Your task to perform on an android device: Go to location settings Image 0: 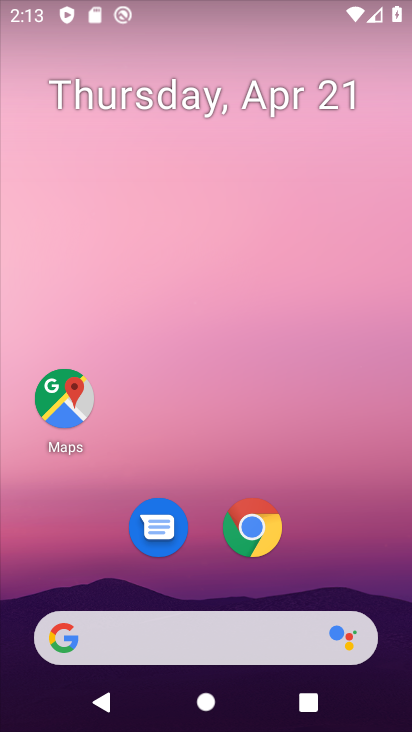
Step 0: drag from (224, 590) to (224, 126)
Your task to perform on an android device: Go to location settings Image 1: 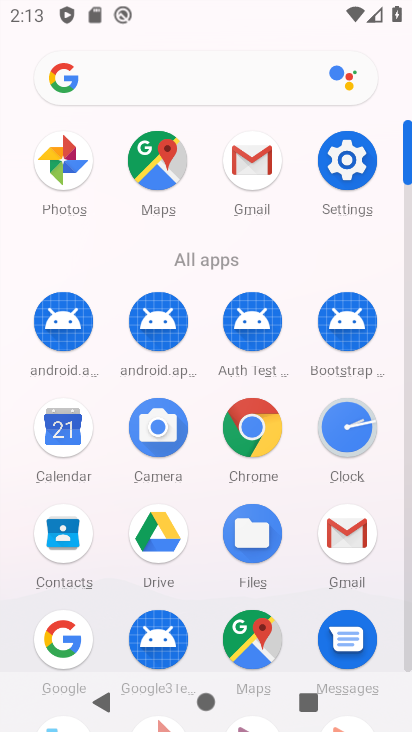
Step 1: click (353, 154)
Your task to perform on an android device: Go to location settings Image 2: 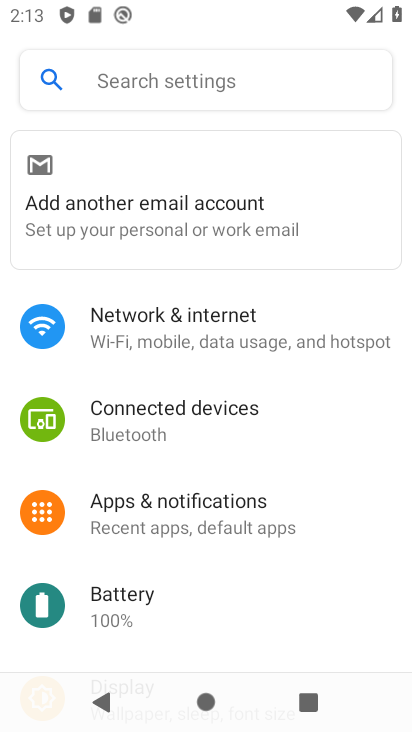
Step 2: drag from (222, 569) to (225, 191)
Your task to perform on an android device: Go to location settings Image 3: 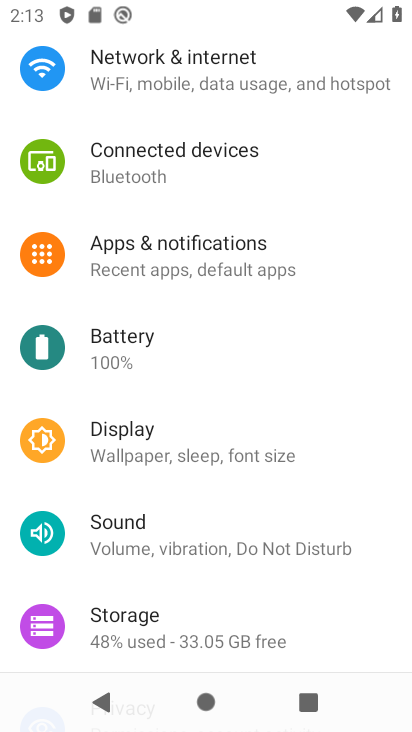
Step 3: drag from (192, 441) to (192, 282)
Your task to perform on an android device: Go to location settings Image 4: 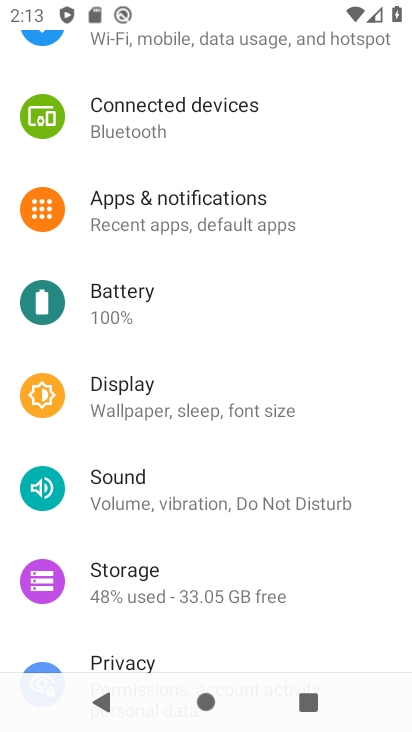
Step 4: drag from (175, 523) to (192, 280)
Your task to perform on an android device: Go to location settings Image 5: 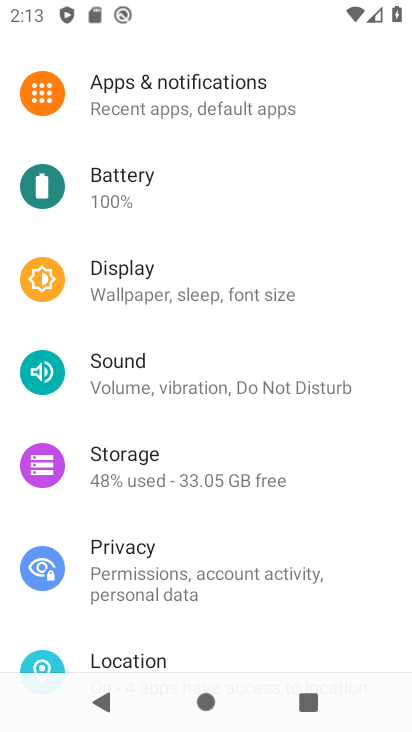
Step 5: drag from (157, 583) to (163, 323)
Your task to perform on an android device: Go to location settings Image 6: 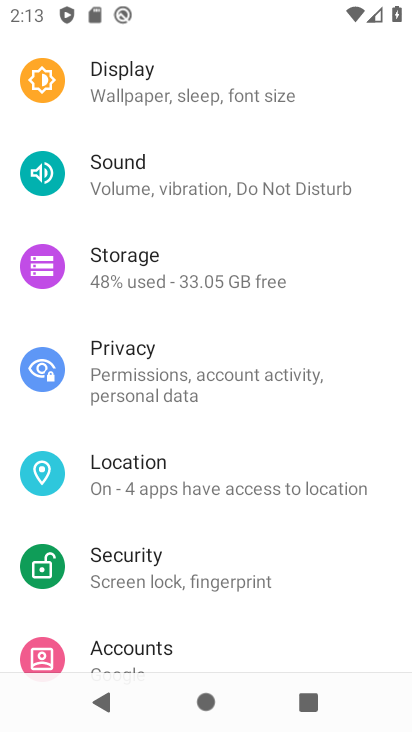
Step 6: click (122, 460)
Your task to perform on an android device: Go to location settings Image 7: 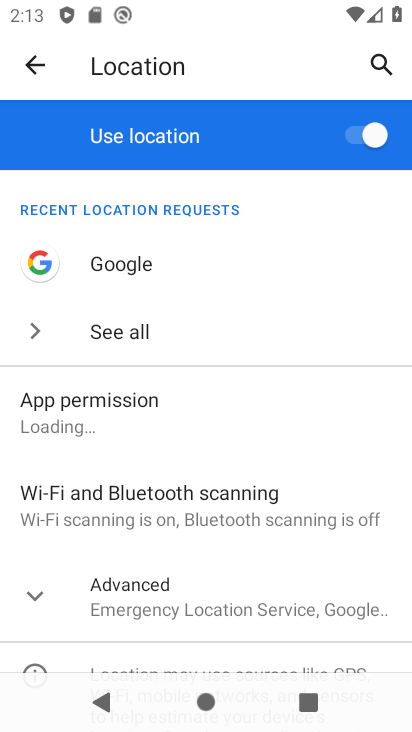
Step 7: task complete